Your task to perform on an android device: toggle data saver in the chrome app Image 0: 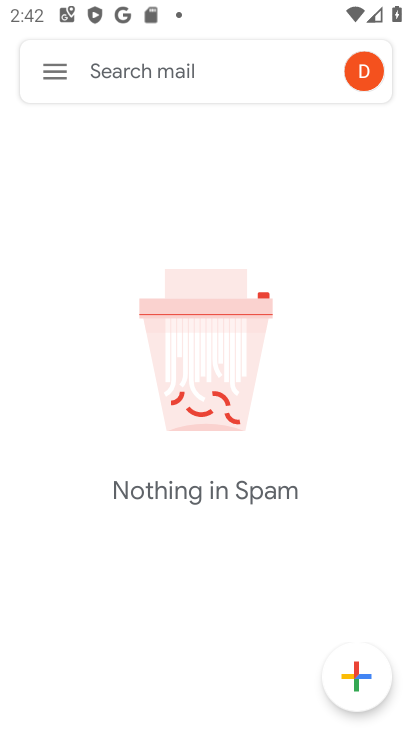
Step 0: press back button
Your task to perform on an android device: toggle data saver in the chrome app Image 1: 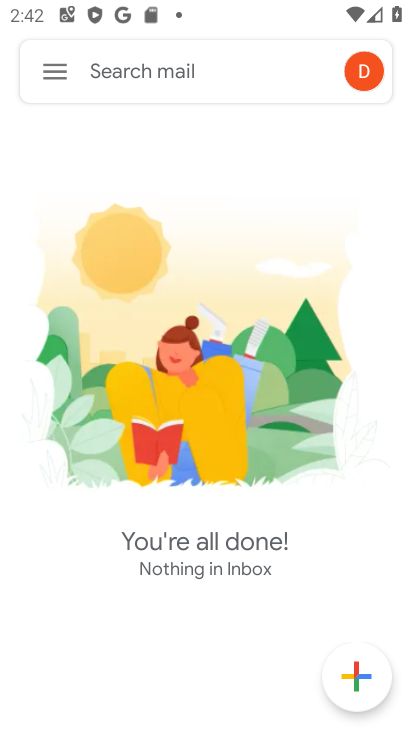
Step 1: press home button
Your task to perform on an android device: toggle data saver in the chrome app Image 2: 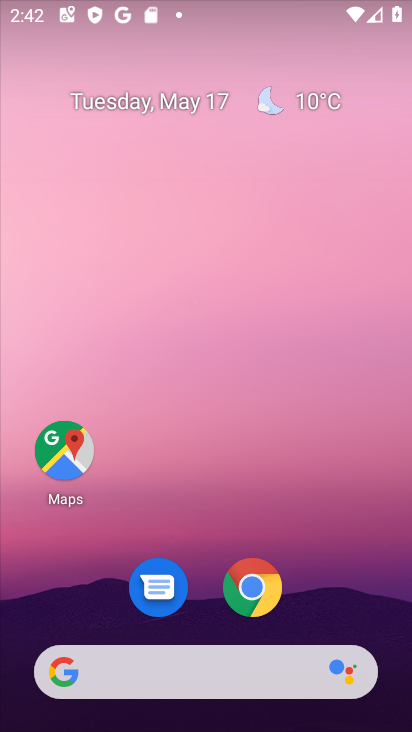
Step 2: drag from (300, 571) to (286, 6)
Your task to perform on an android device: toggle data saver in the chrome app Image 3: 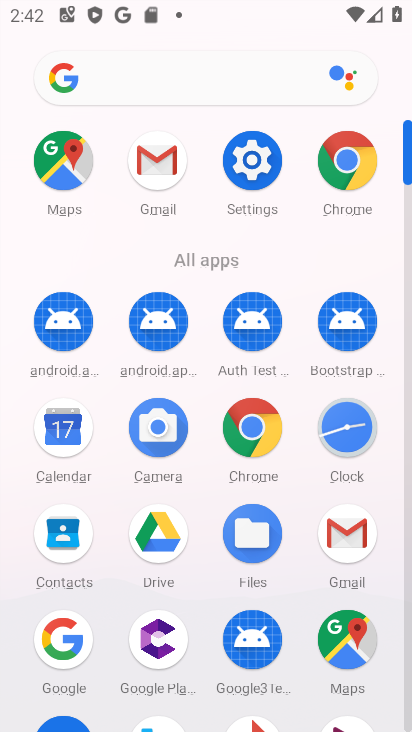
Step 3: click (250, 427)
Your task to perform on an android device: toggle data saver in the chrome app Image 4: 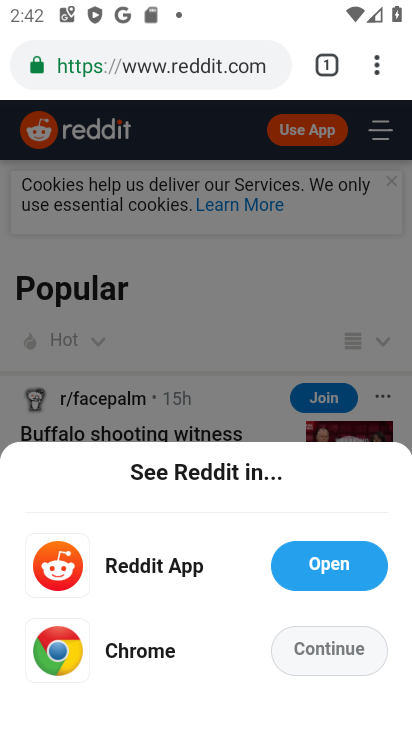
Step 4: drag from (376, 57) to (144, 643)
Your task to perform on an android device: toggle data saver in the chrome app Image 5: 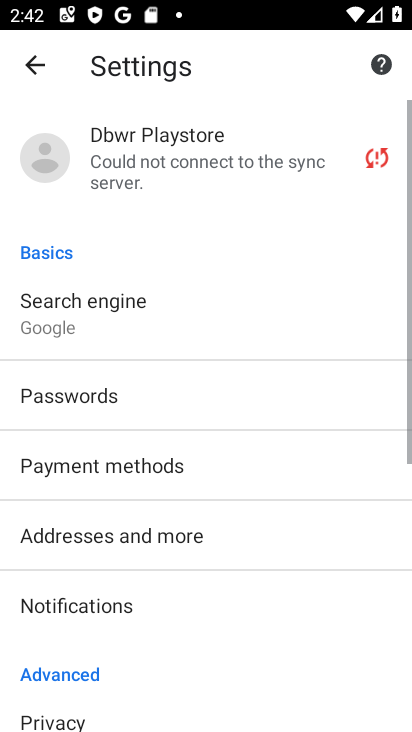
Step 5: drag from (213, 594) to (256, 151)
Your task to perform on an android device: toggle data saver in the chrome app Image 6: 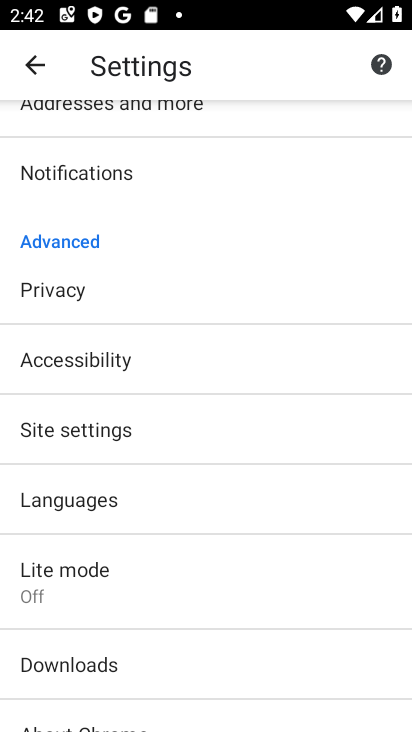
Step 6: drag from (194, 622) to (238, 221)
Your task to perform on an android device: toggle data saver in the chrome app Image 7: 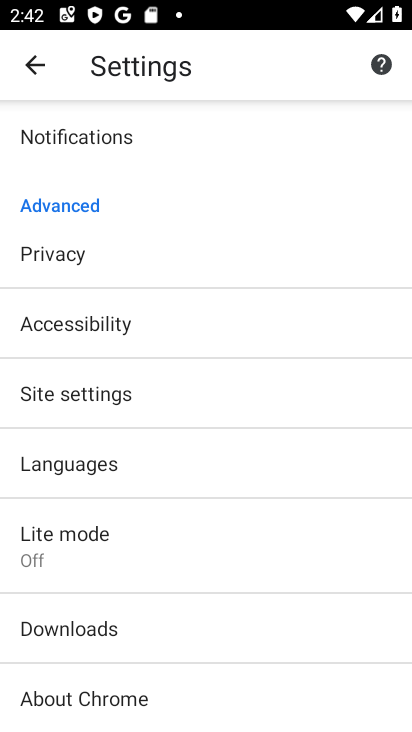
Step 7: click (112, 391)
Your task to perform on an android device: toggle data saver in the chrome app Image 8: 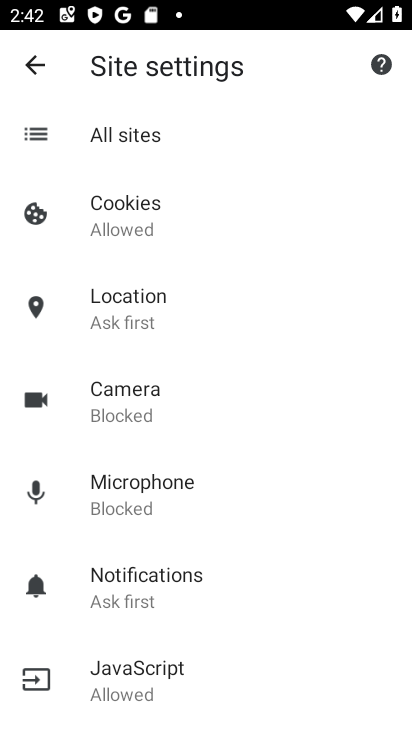
Step 8: click (43, 69)
Your task to perform on an android device: toggle data saver in the chrome app Image 9: 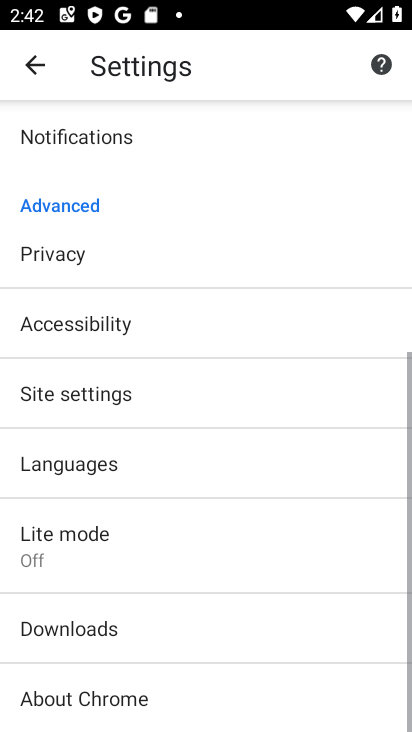
Step 9: click (99, 577)
Your task to perform on an android device: toggle data saver in the chrome app Image 10: 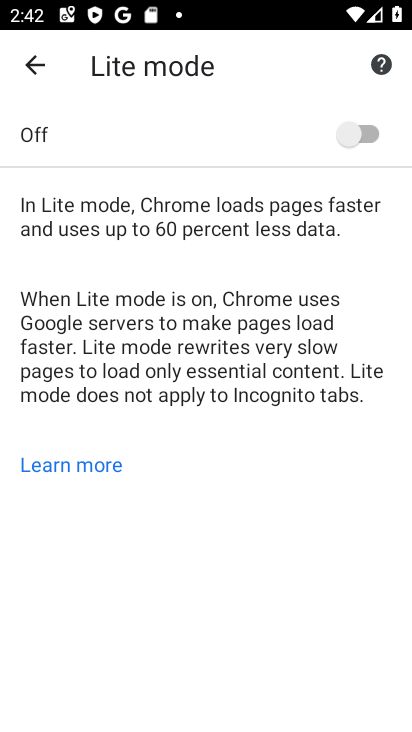
Step 10: click (359, 120)
Your task to perform on an android device: toggle data saver in the chrome app Image 11: 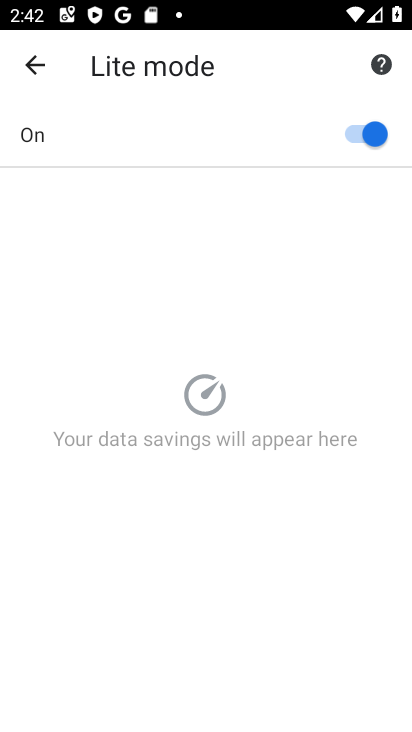
Step 11: task complete